Your task to perform on an android device: Check the news Image 0: 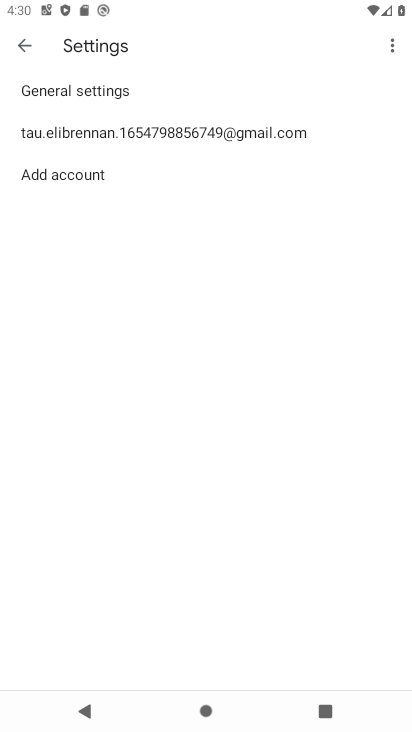
Step 0: press home button
Your task to perform on an android device: Check the news Image 1: 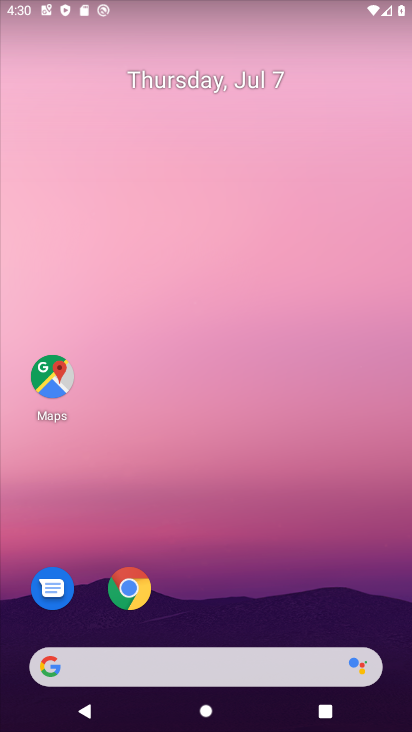
Step 1: drag from (329, 582) to (329, 96)
Your task to perform on an android device: Check the news Image 2: 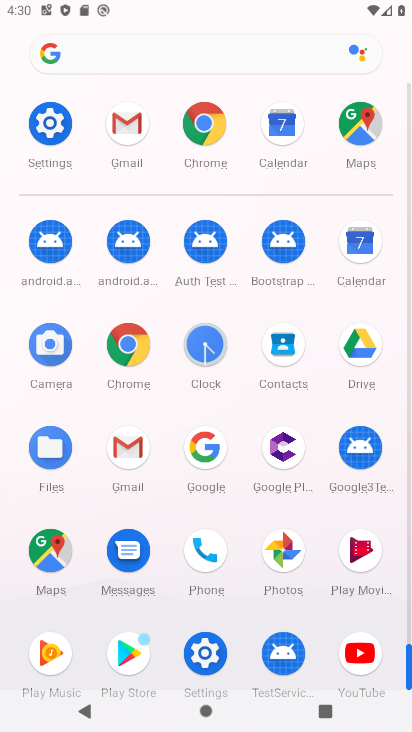
Step 2: click (132, 345)
Your task to perform on an android device: Check the news Image 3: 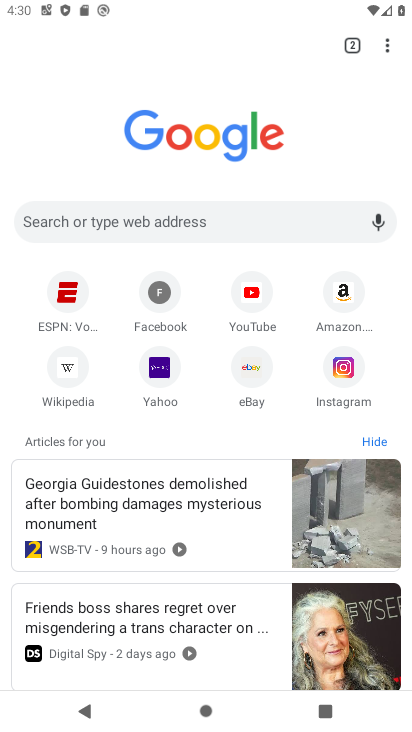
Step 3: click (211, 208)
Your task to perform on an android device: Check the news Image 4: 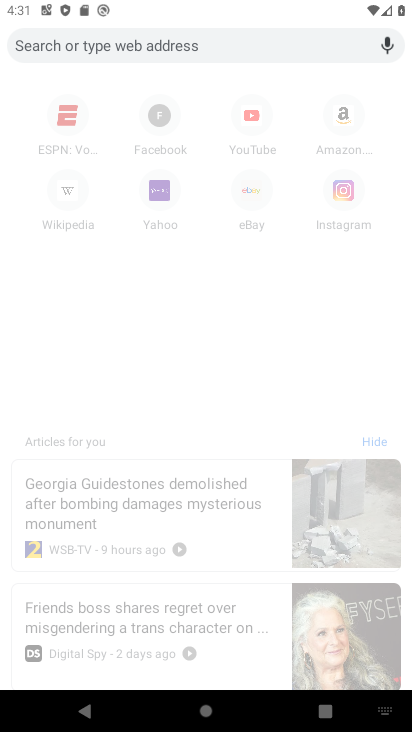
Step 4: type "check the news"
Your task to perform on an android device: Check the news Image 5: 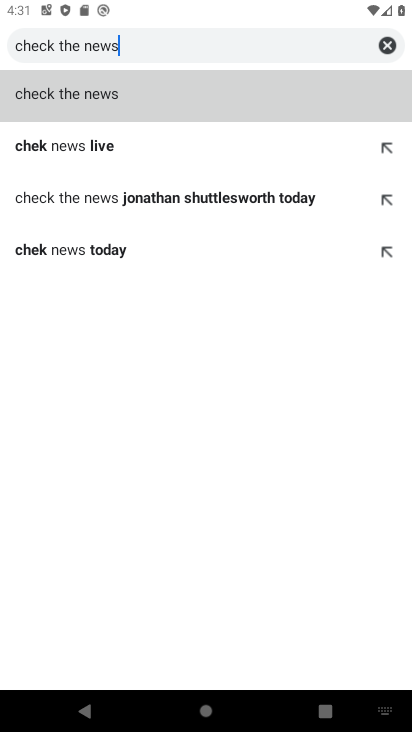
Step 5: click (347, 100)
Your task to perform on an android device: Check the news Image 6: 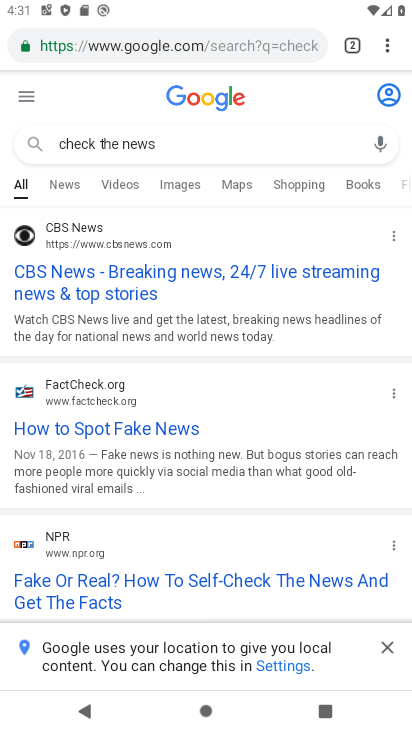
Step 6: task complete